Your task to perform on an android device: change timer sound Image 0: 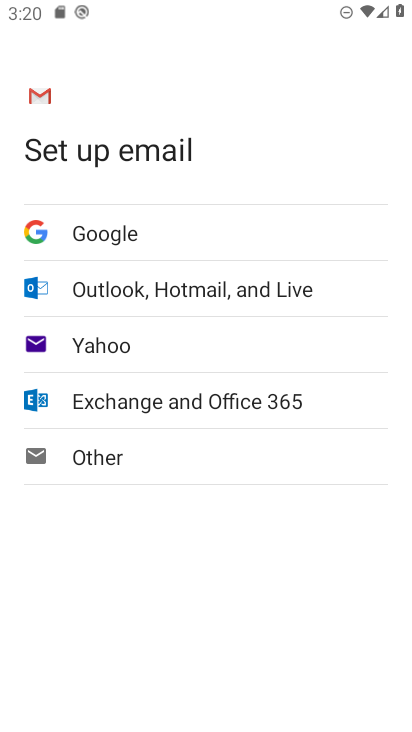
Step 0: press home button
Your task to perform on an android device: change timer sound Image 1: 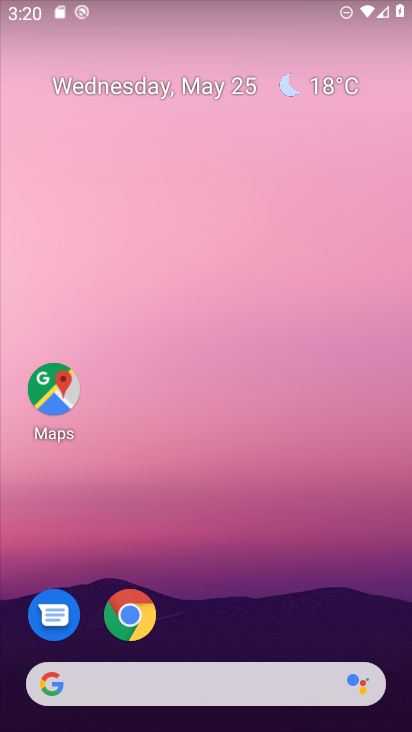
Step 1: drag from (294, 563) to (323, 21)
Your task to perform on an android device: change timer sound Image 2: 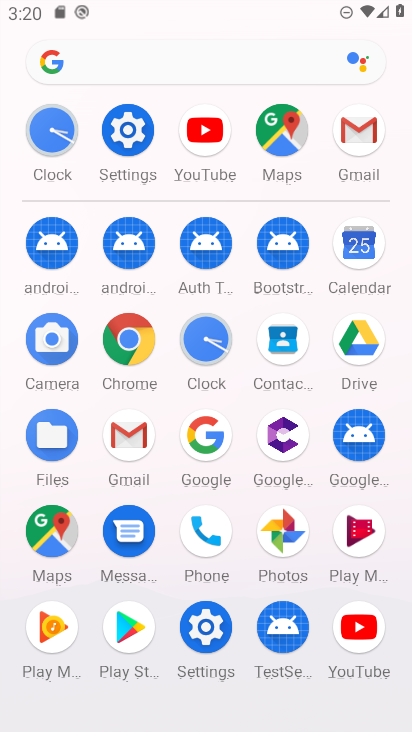
Step 2: click (63, 129)
Your task to perform on an android device: change timer sound Image 3: 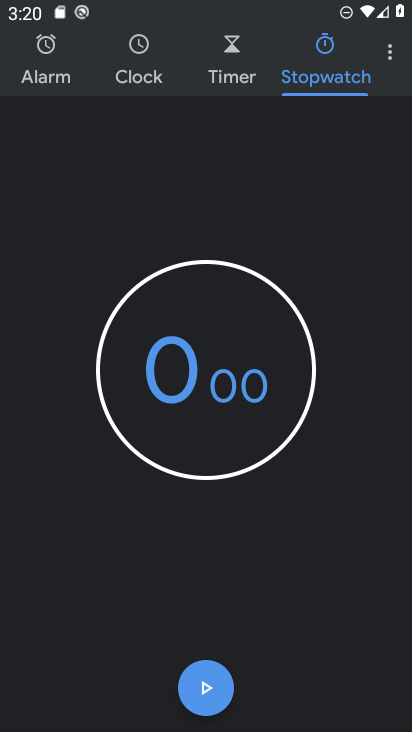
Step 3: click (387, 50)
Your task to perform on an android device: change timer sound Image 4: 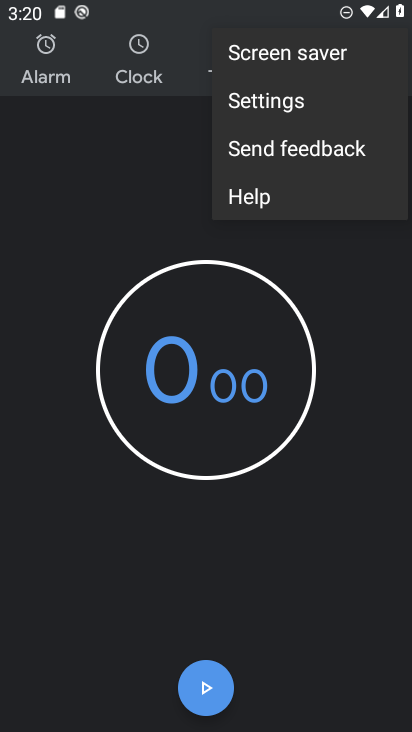
Step 4: click (323, 101)
Your task to perform on an android device: change timer sound Image 5: 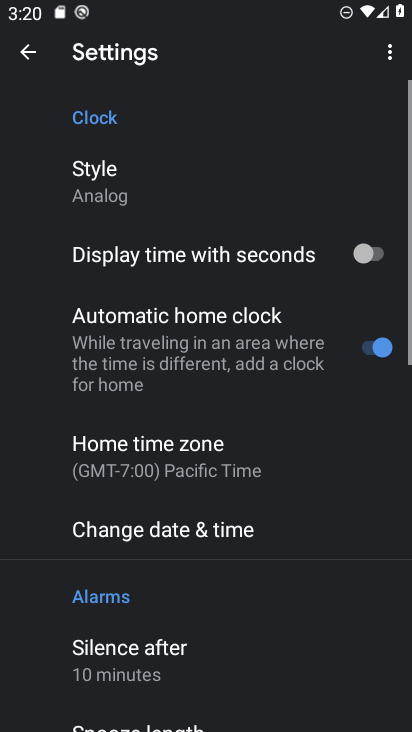
Step 5: drag from (276, 539) to (285, 151)
Your task to perform on an android device: change timer sound Image 6: 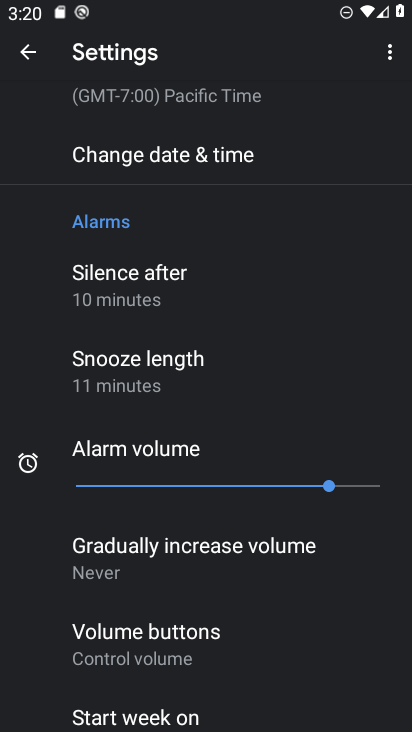
Step 6: drag from (216, 593) to (265, 205)
Your task to perform on an android device: change timer sound Image 7: 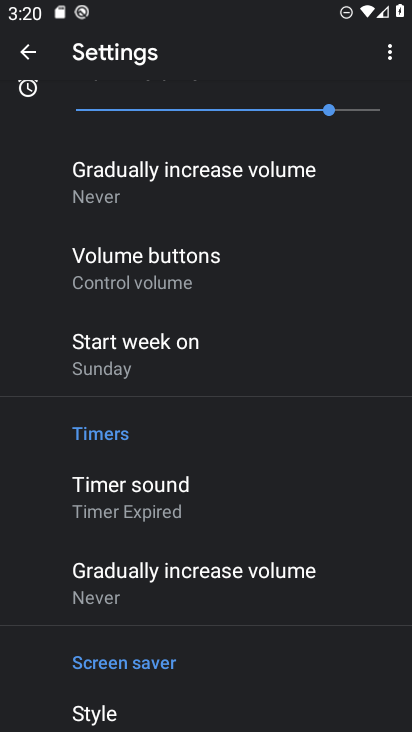
Step 7: click (177, 497)
Your task to perform on an android device: change timer sound Image 8: 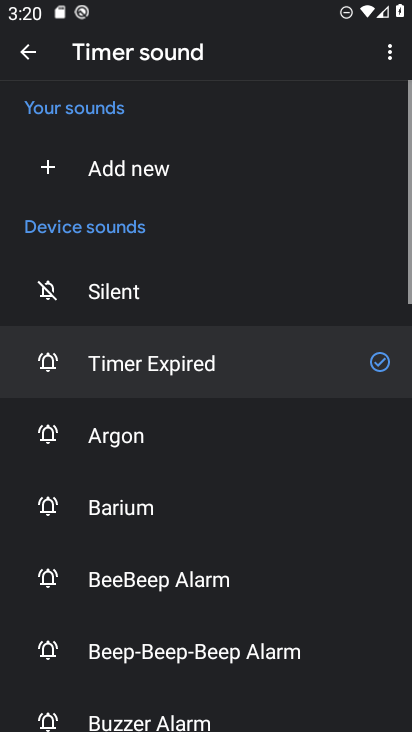
Step 8: click (165, 510)
Your task to perform on an android device: change timer sound Image 9: 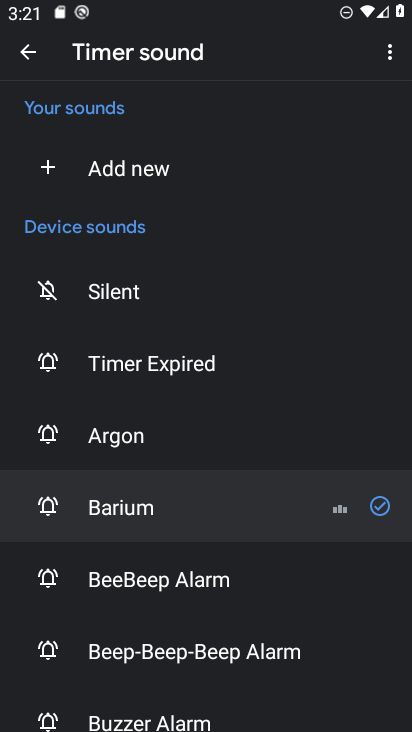
Step 9: task complete